Your task to perform on an android device: Open settings on Google Maps Image 0: 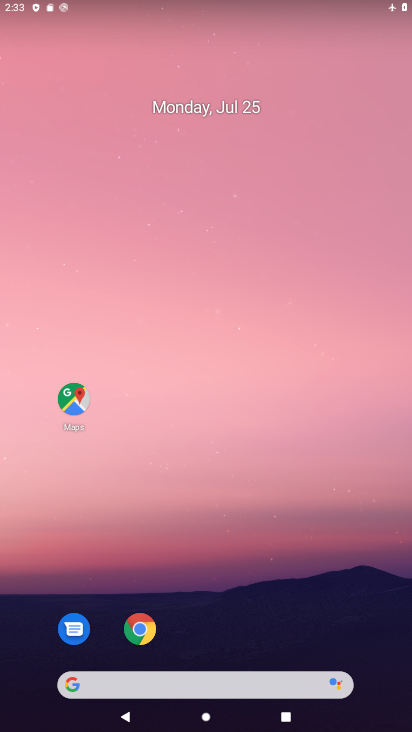
Step 0: drag from (233, 626) to (205, 160)
Your task to perform on an android device: Open settings on Google Maps Image 1: 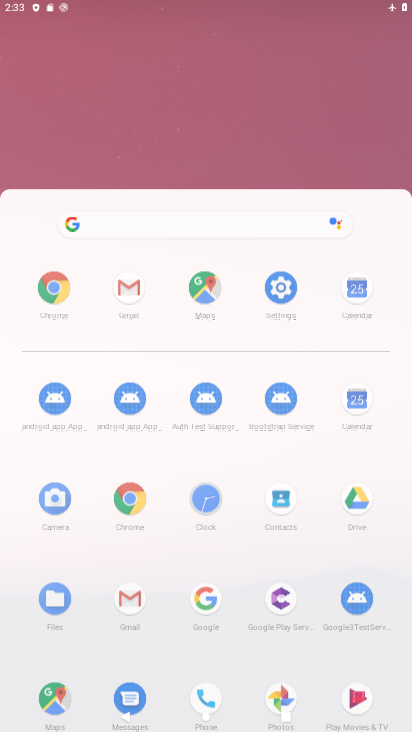
Step 1: drag from (217, 419) to (254, 233)
Your task to perform on an android device: Open settings on Google Maps Image 2: 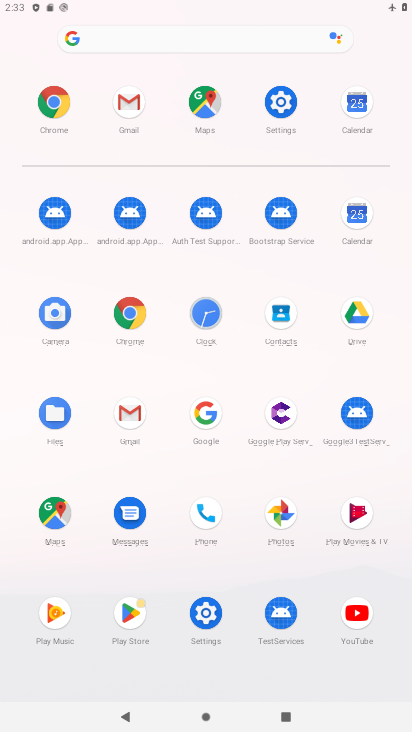
Step 2: click (56, 508)
Your task to perform on an android device: Open settings on Google Maps Image 3: 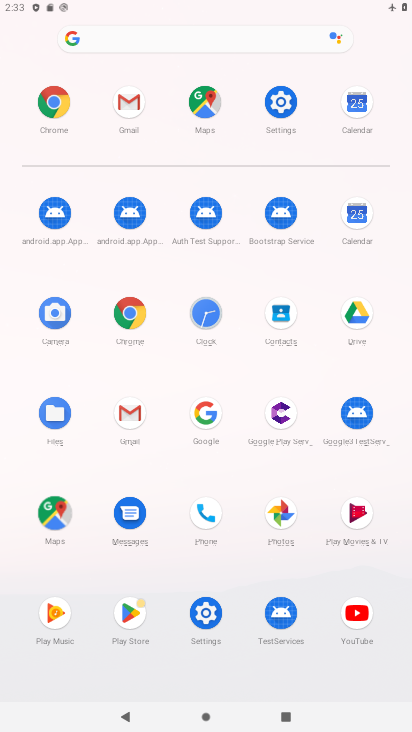
Step 3: click (53, 502)
Your task to perform on an android device: Open settings on Google Maps Image 4: 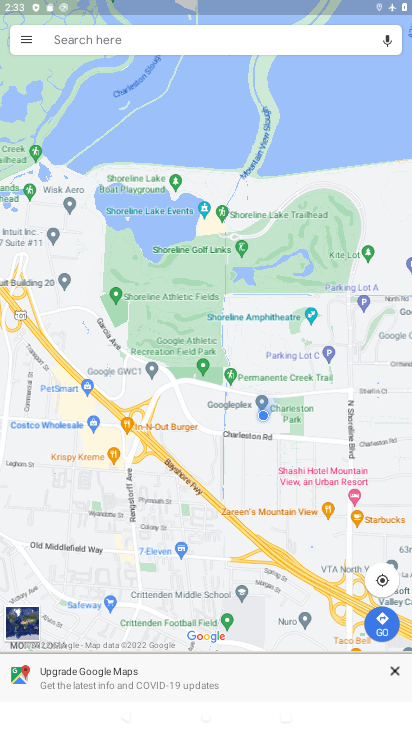
Step 4: task complete